Your task to perform on an android device: turn on notifications settings in the gmail app Image 0: 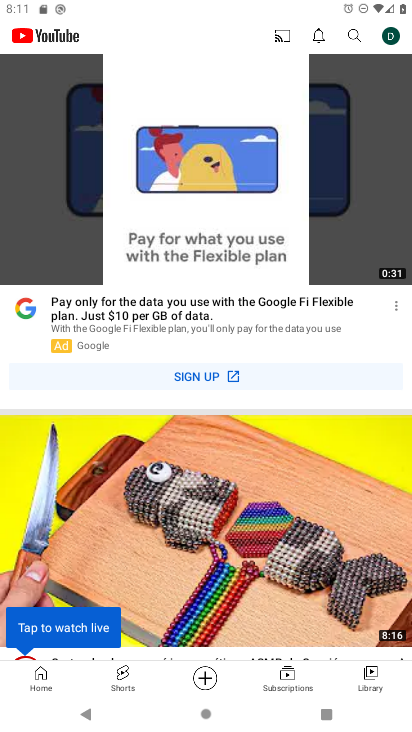
Step 0: press home button
Your task to perform on an android device: turn on notifications settings in the gmail app Image 1: 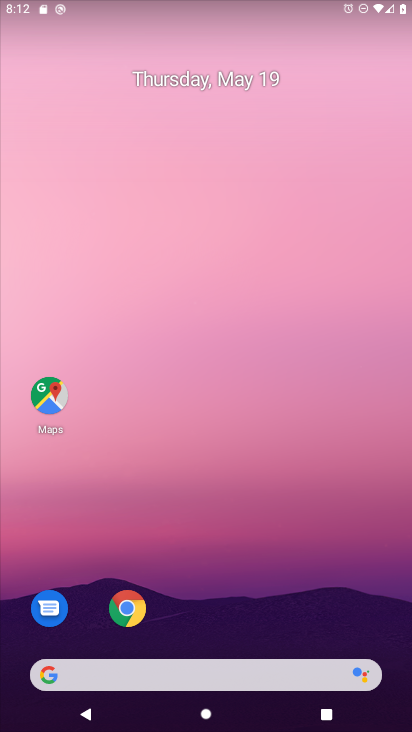
Step 1: drag from (394, 659) to (364, 316)
Your task to perform on an android device: turn on notifications settings in the gmail app Image 2: 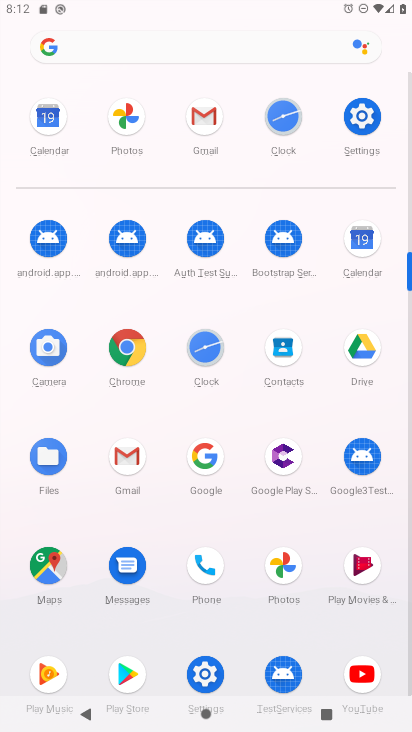
Step 2: click (211, 123)
Your task to perform on an android device: turn on notifications settings in the gmail app Image 3: 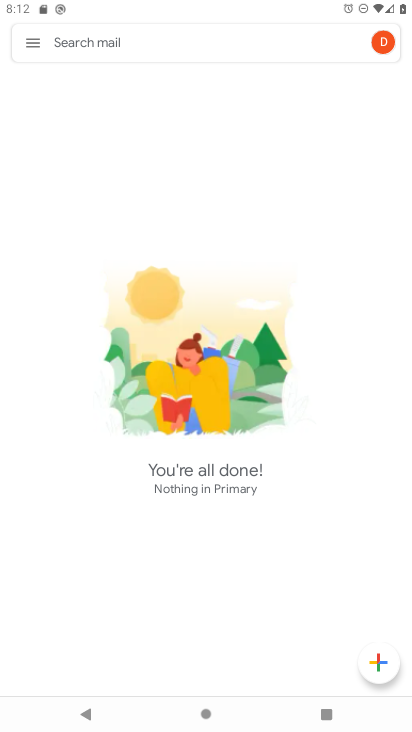
Step 3: click (29, 41)
Your task to perform on an android device: turn on notifications settings in the gmail app Image 4: 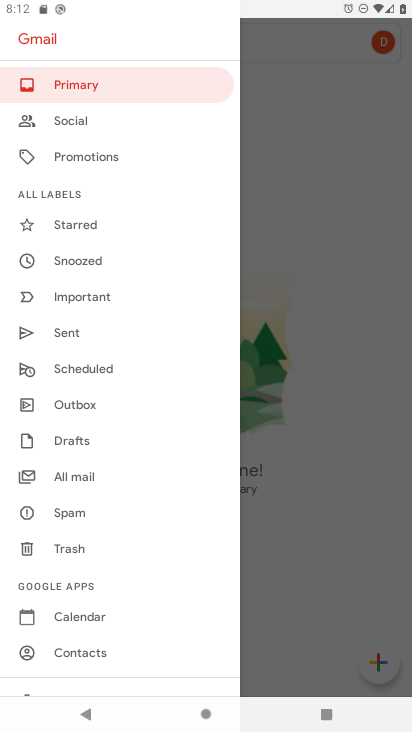
Step 4: drag from (145, 595) to (156, 406)
Your task to perform on an android device: turn on notifications settings in the gmail app Image 5: 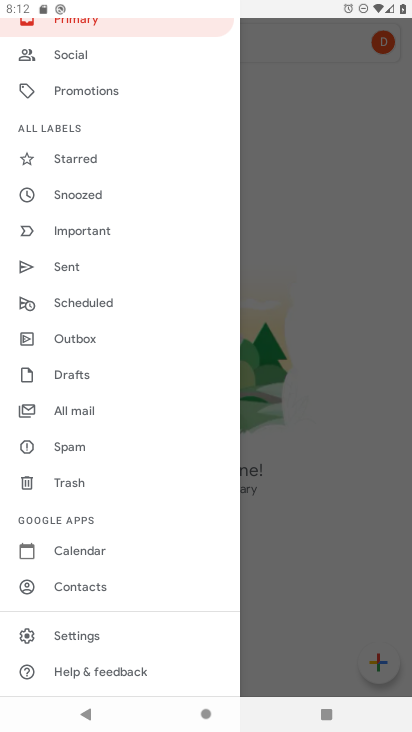
Step 5: click (70, 634)
Your task to perform on an android device: turn on notifications settings in the gmail app Image 6: 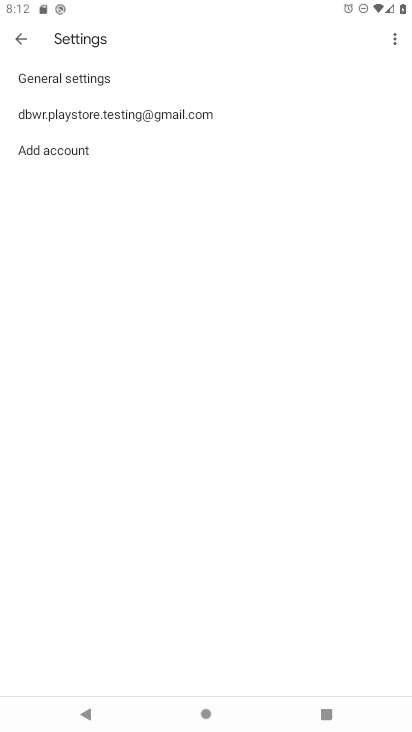
Step 6: click (51, 75)
Your task to perform on an android device: turn on notifications settings in the gmail app Image 7: 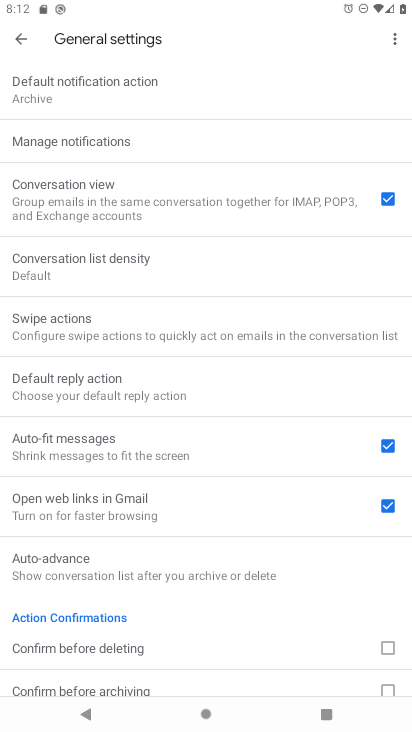
Step 7: click (52, 141)
Your task to perform on an android device: turn on notifications settings in the gmail app Image 8: 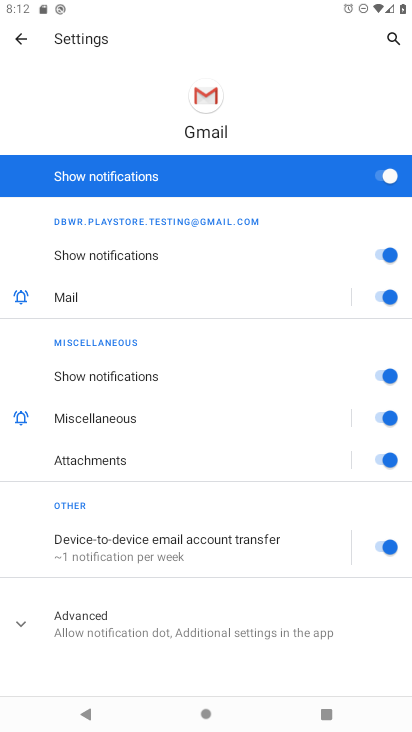
Step 8: task complete